Your task to perform on an android device: Go to network settings Image 0: 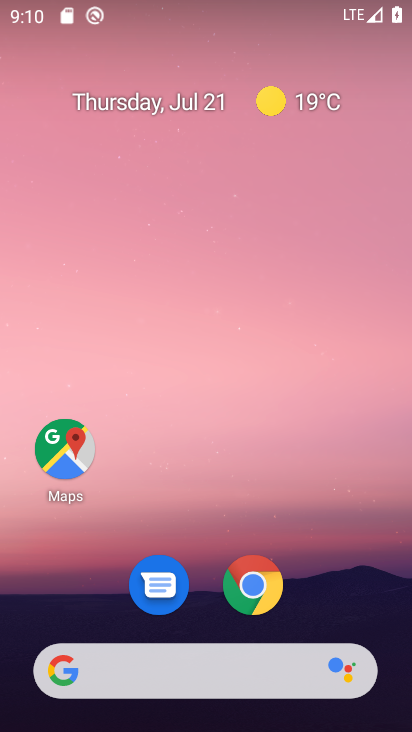
Step 0: drag from (318, 552) to (401, 76)
Your task to perform on an android device: Go to network settings Image 1: 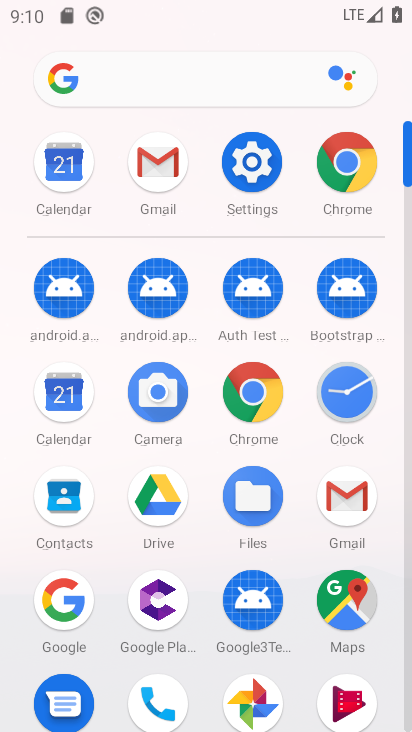
Step 1: click (247, 159)
Your task to perform on an android device: Go to network settings Image 2: 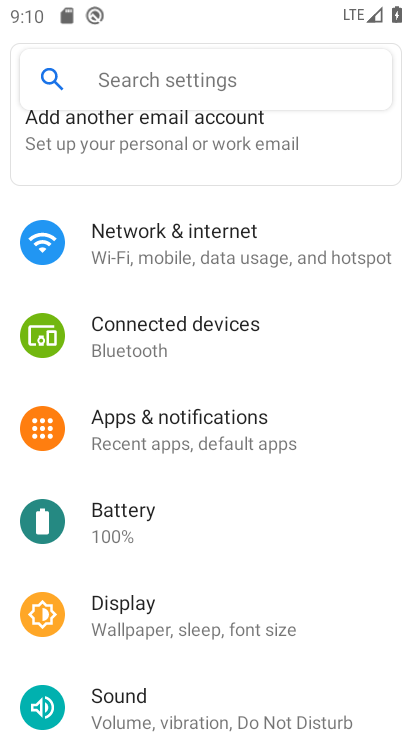
Step 2: click (254, 233)
Your task to perform on an android device: Go to network settings Image 3: 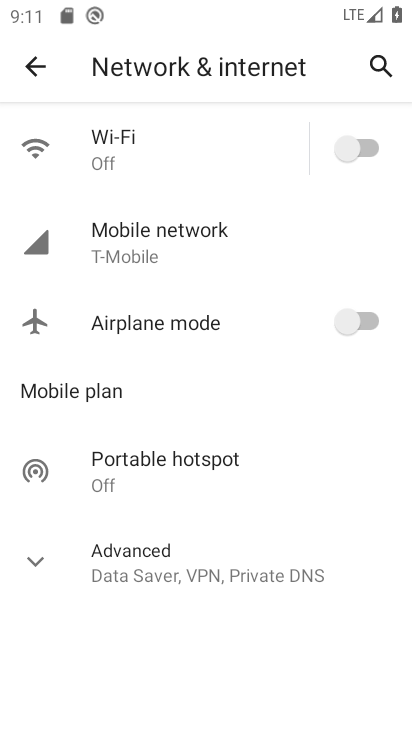
Step 3: task complete